Your task to perform on an android device: Open internet settings Image 0: 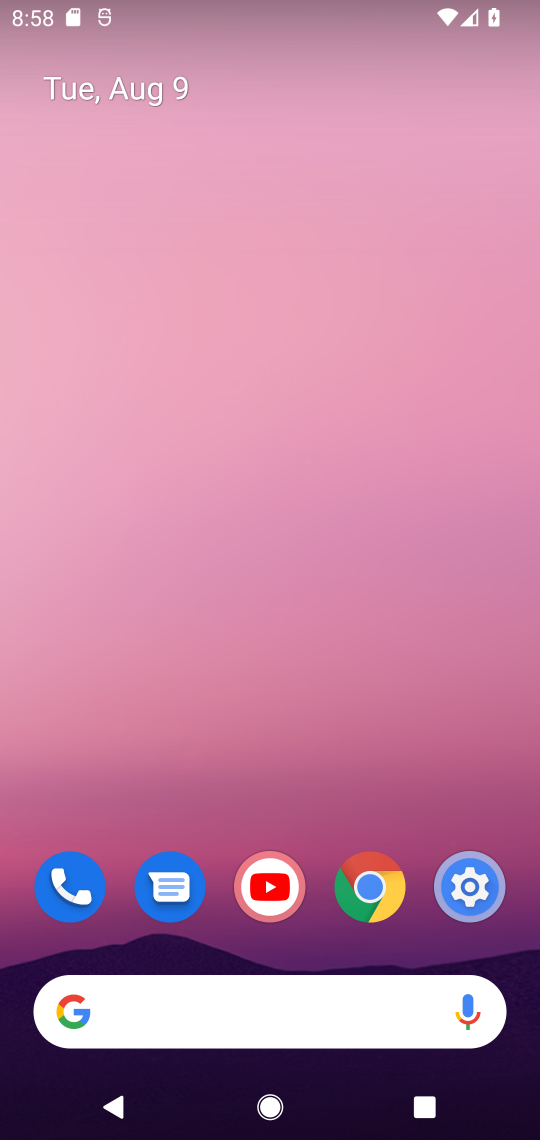
Step 0: click (461, 898)
Your task to perform on an android device: Open internet settings Image 1: 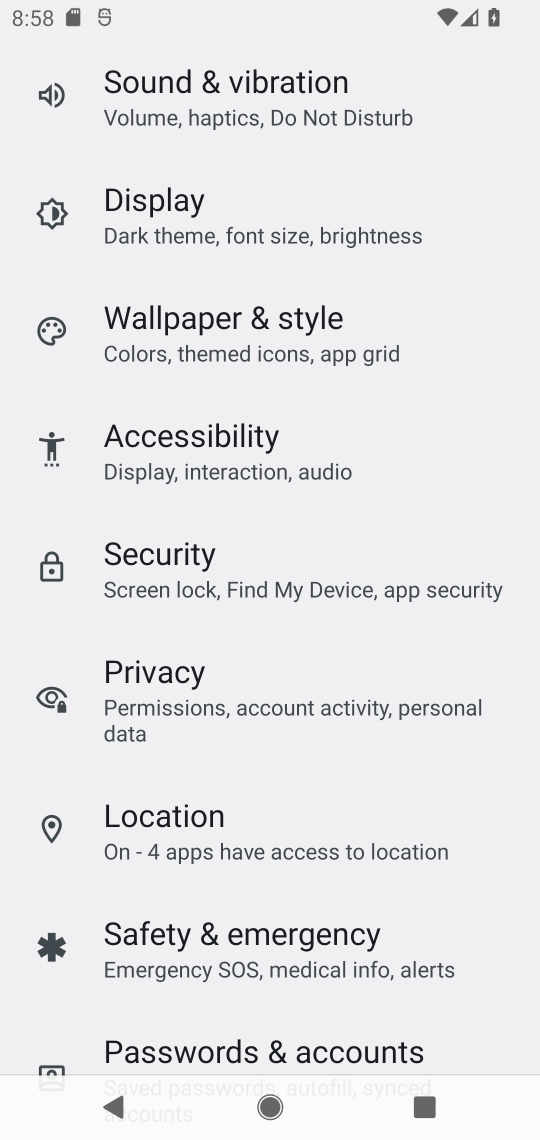
Step 1: drag from (196, 515) to (223, 794)
Your task to perform on an android device: Open internet settings Image 2: 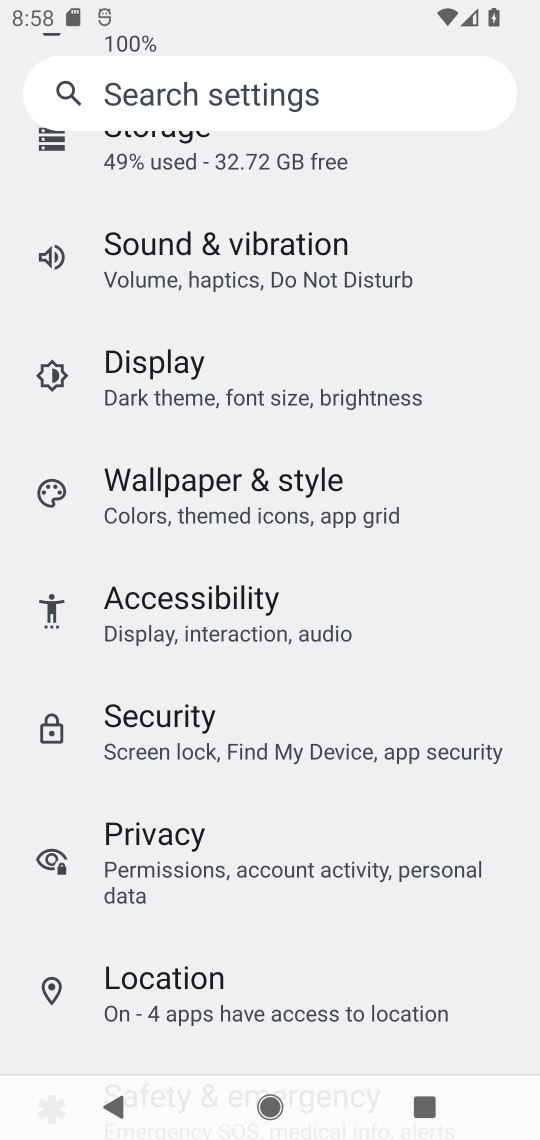
Step 2: drag from (322, 540) to (362, 872)
Your task to perform on an android device: Open internet settings Image 3: 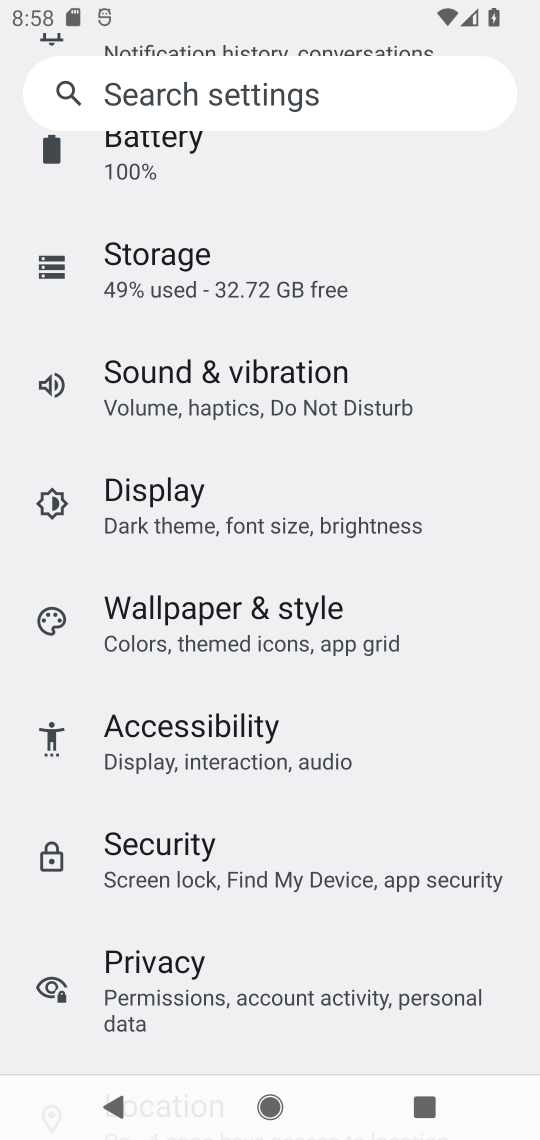
Step 3: drag from (236, 601) to (269, 985)
Your task to perform on an android device: Open internet settings Image 4: 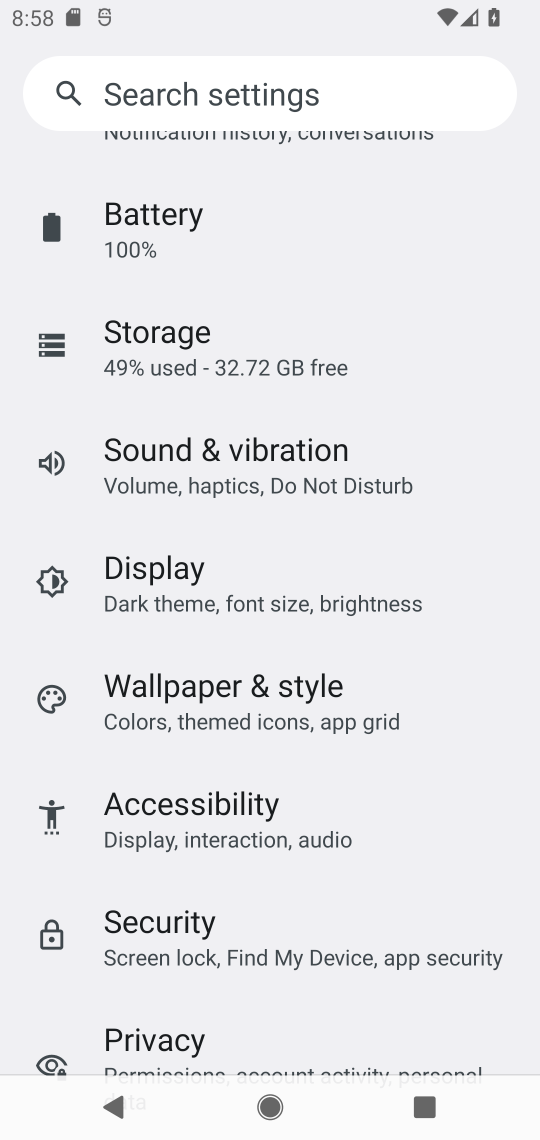
Step 4: drag from (305, 369) to (374, 871)
Your task to perform on an android device: Open internet settings Image 5: 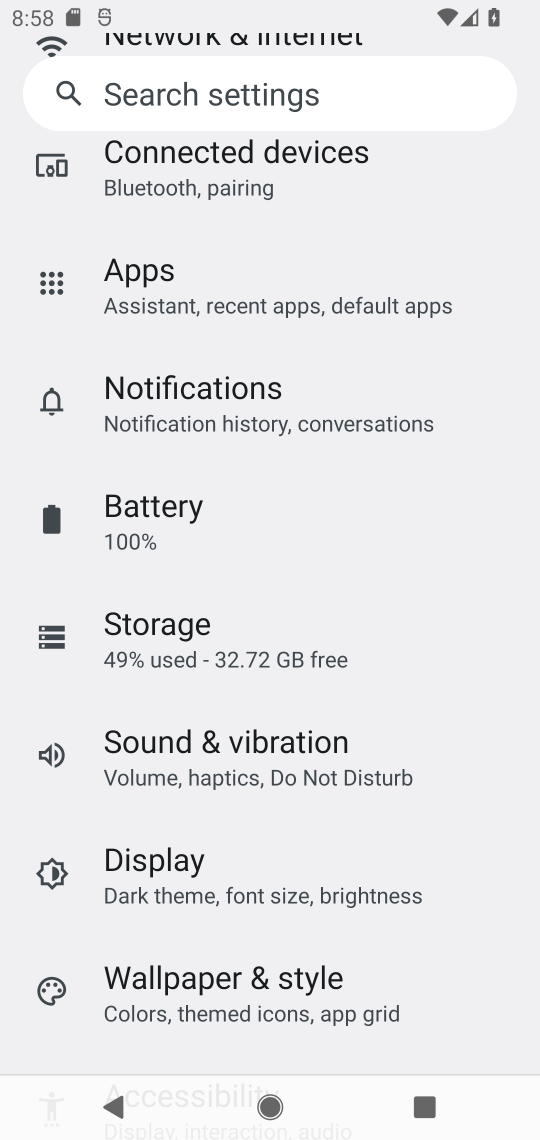
Step 5: drag from (297, 272) to (321, 901)
Your task to perform on an android device: Open internet settings Image 6: 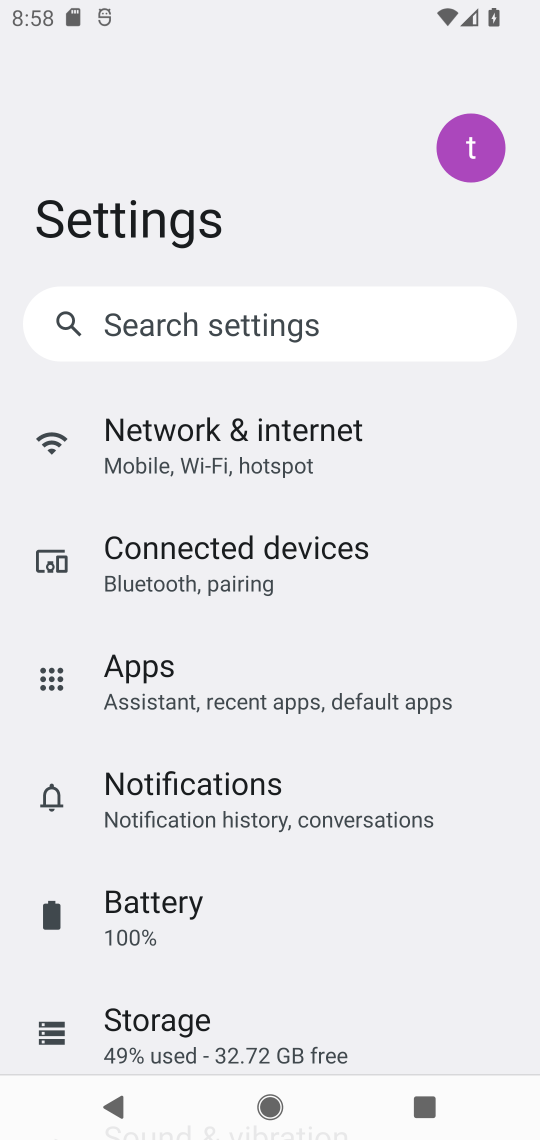
Step 6: click (254, 436)
Your task to perform on an android device: Open internet settings Image 7: 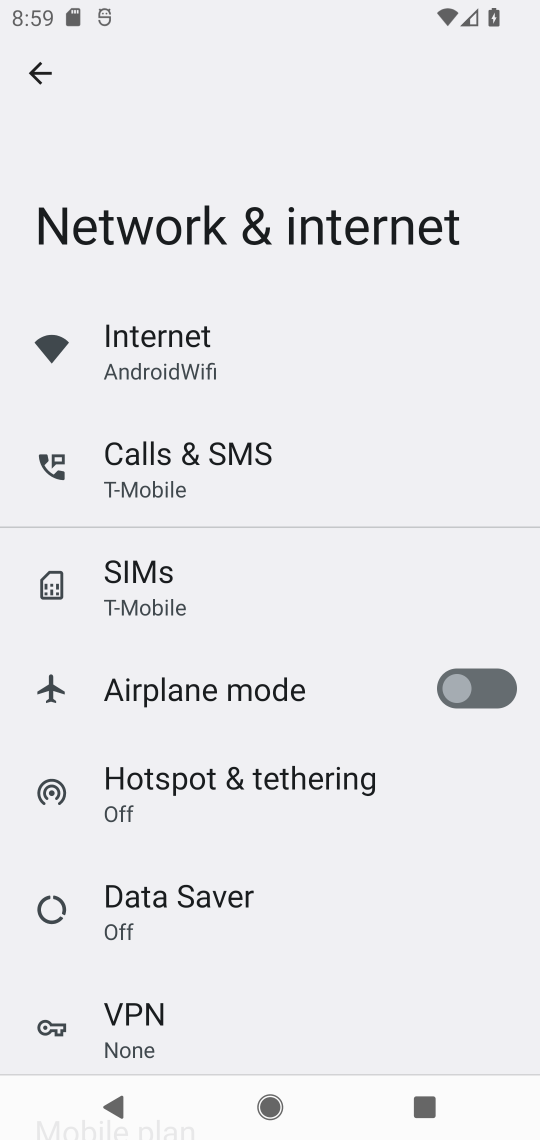
Step 7: click (270, 344)
Your task to perform on an android device: Open internet settings Image 8: 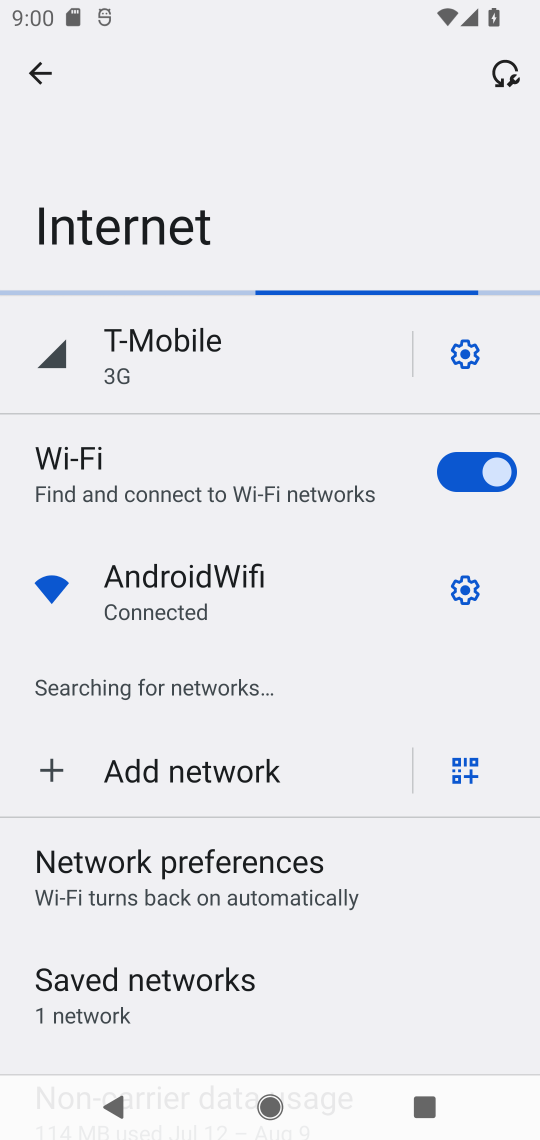
Step 8: task complete